Your task to perform on an android device: check data usage Image 0: 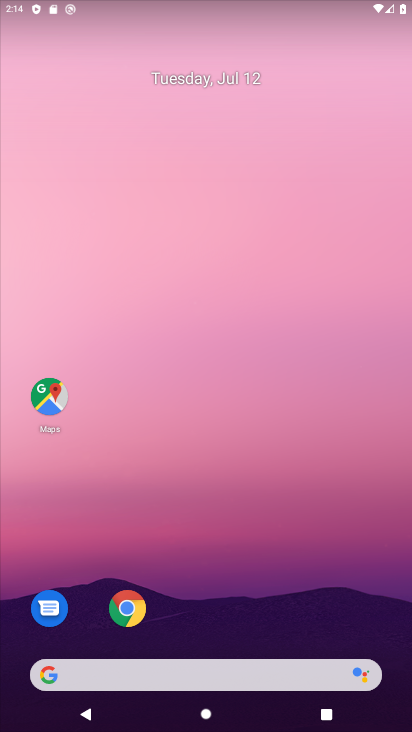
Step 0: drag from (227, 546) to (178, 50)
Your task to perform on an android device: check data usage Image 1: 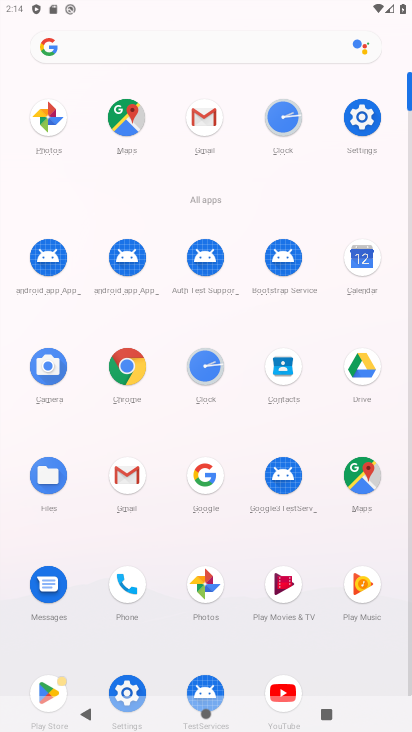
Step 1: click (359, 121)
Your task to perform on an android device: check data usage Image 2: 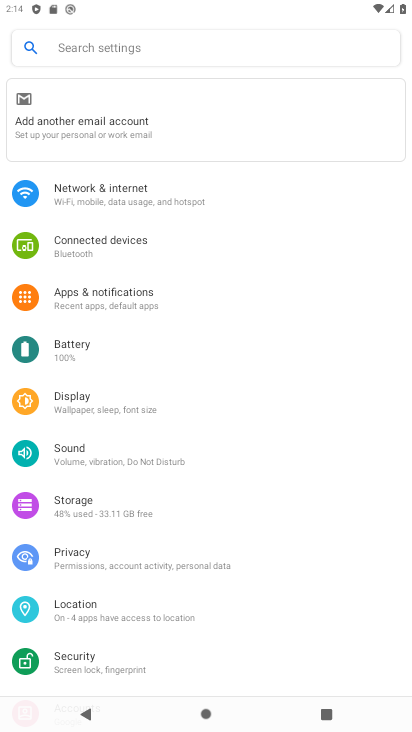
Step 2: click (97, 189)
Your task to perform on an android device: check data usage Image 3: 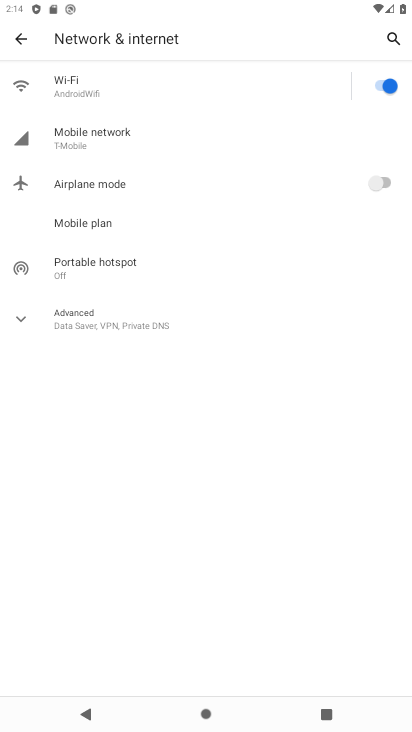
Step 3: click (78, 130)
Your task to perform on an android device: check data usage Image 4: 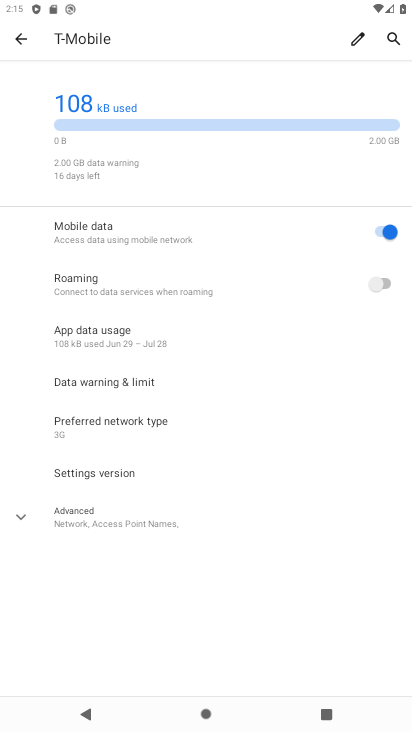
Step 4: task complete